Your task to perform on an android device: turn pop-ups on in chrome Image 0: 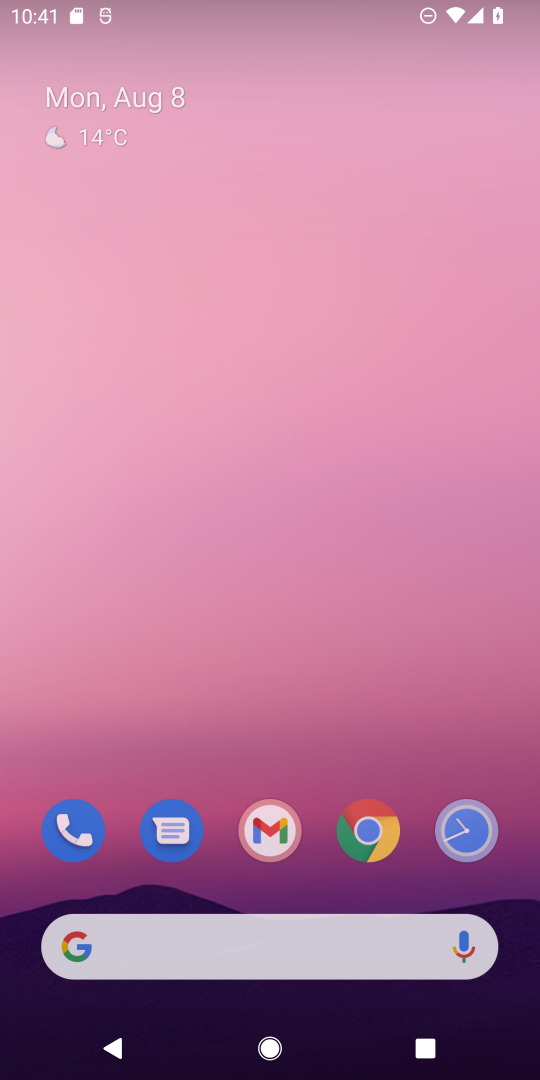
Step 0: press home button
Your task to perform on an android device: turn pop-ups on in chrome Image 1: 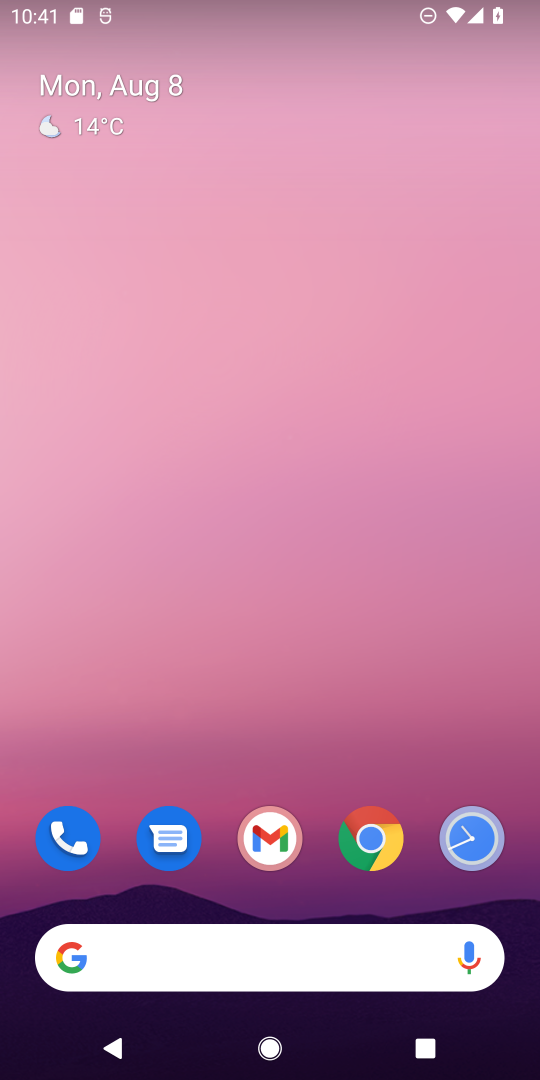
Step 1: click (370, 843)
Your task to perform on an android device: turn pop-ups on in chrome Image 2: 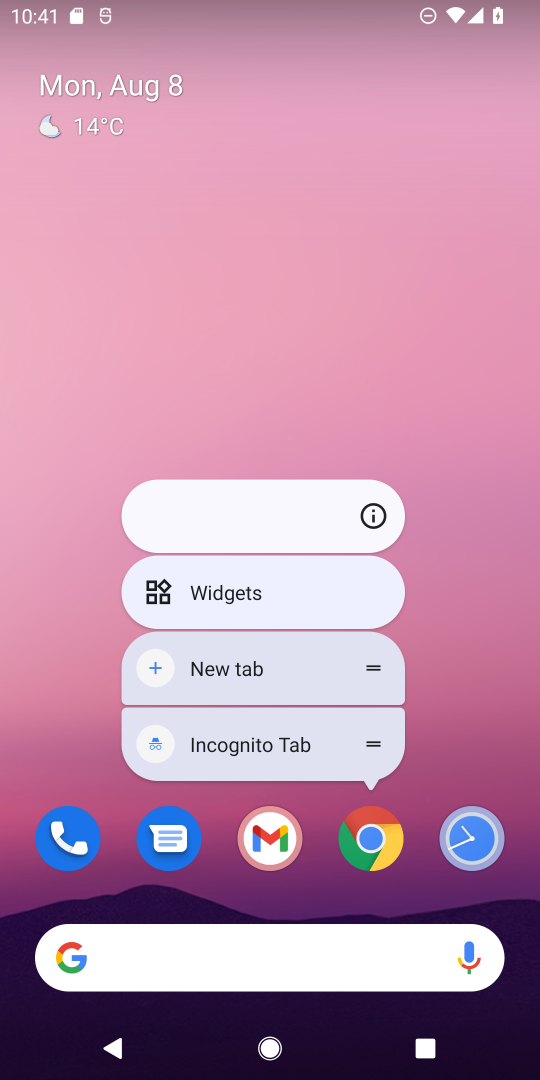
Step 2: click (370, 843)
Your task to perform on an android device: turn pop-ups on in chrome Image 3: 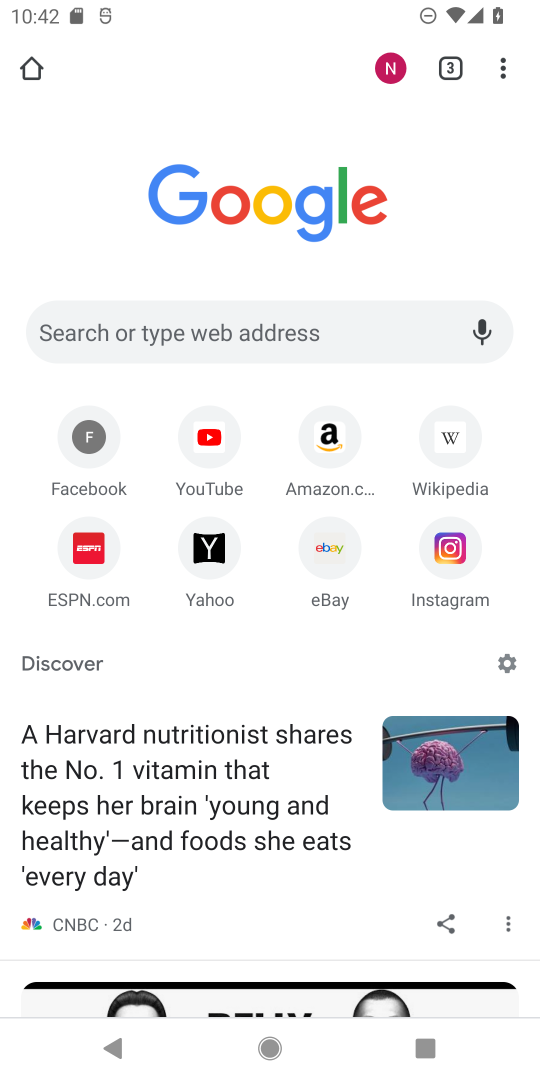
Step 3: drag from (507, 66) to (293, 711)
Your task to perform on an android device: turn pop-ups on in chrome Image 4: 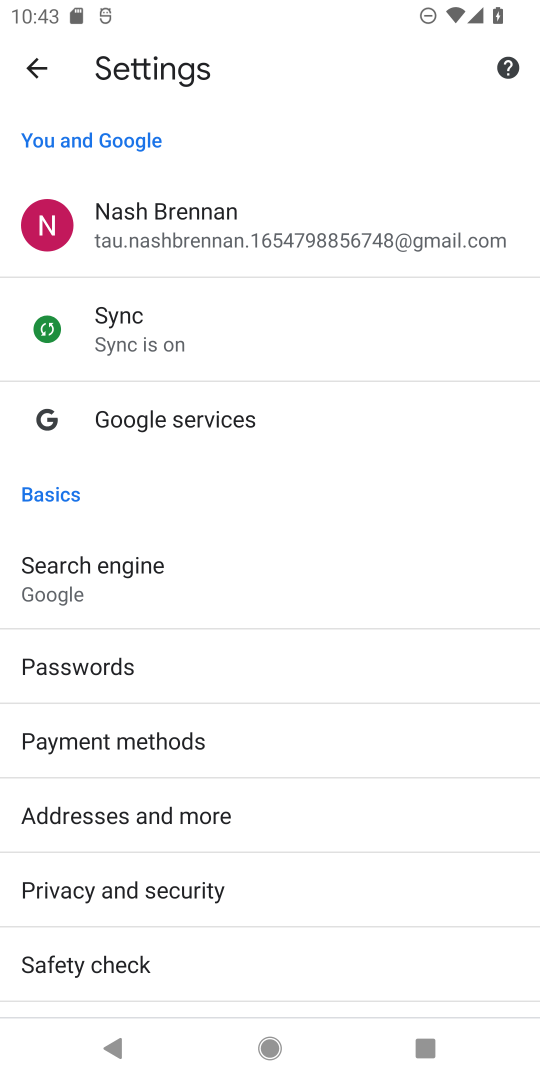
Step 4: drag from (366, 923) to (392, 320)
Your task to perform on an android device: turn pop-ups on in chrome Image 5: 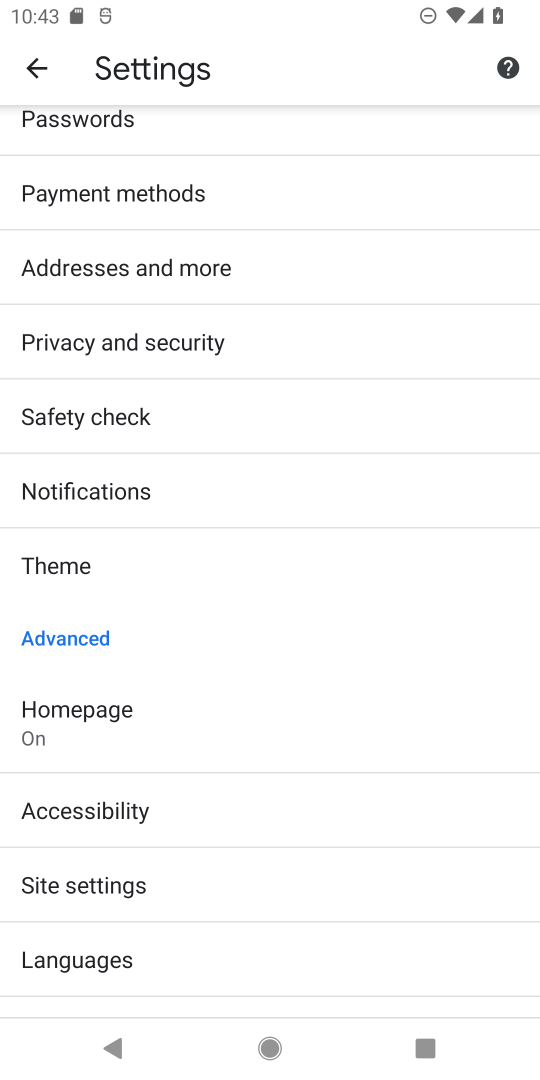
Step 5: click (74, 879)
Your task to perform on an android device: turn pop-ups on in chrome Image 6: 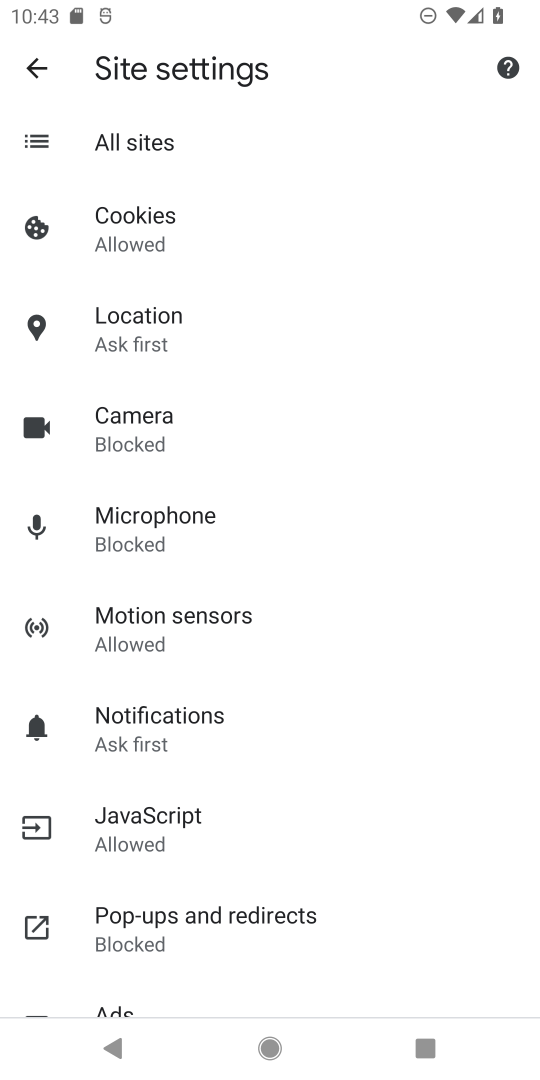
Step 6: click (228, 908)
Your task to perform on an android device: turn pop-ups on in chrome Image 7: 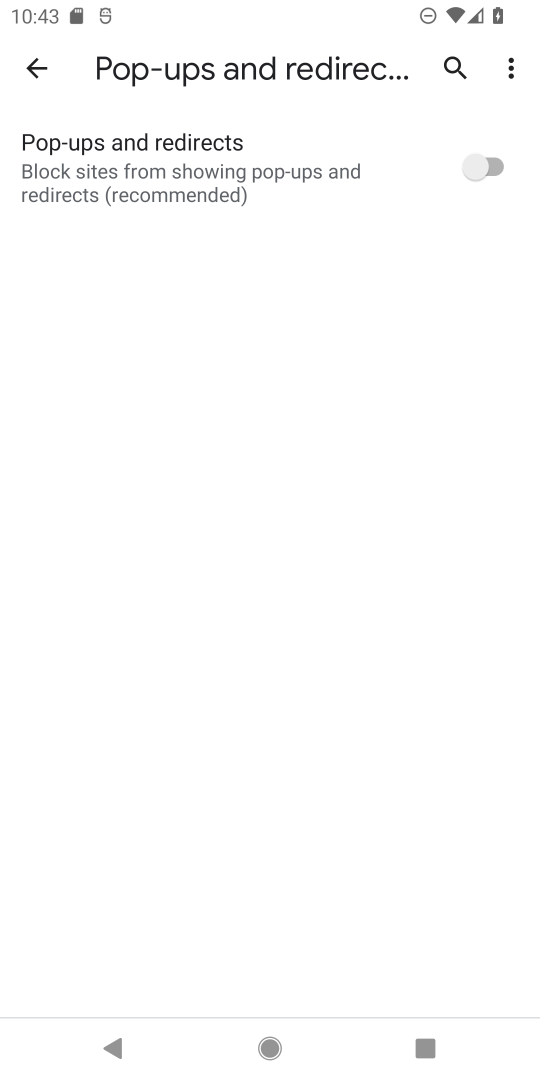
Step 7: click (485, 171)
Your task to perform on an android device: turn pop-ups on in chrome Image 8: 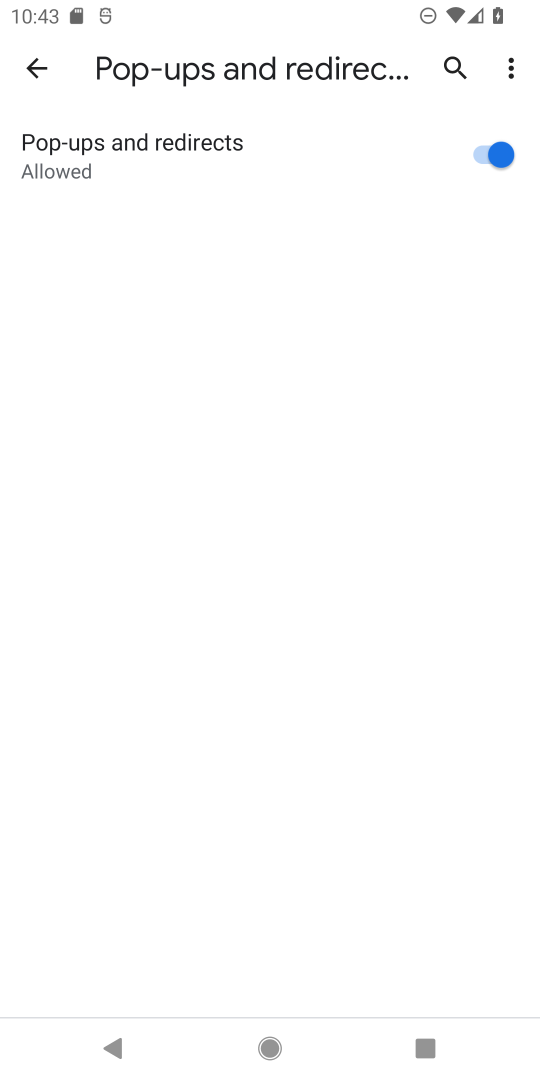
Step 8: task complete